Your task to perform on an android device: turn off picture-in-picture Image 0: 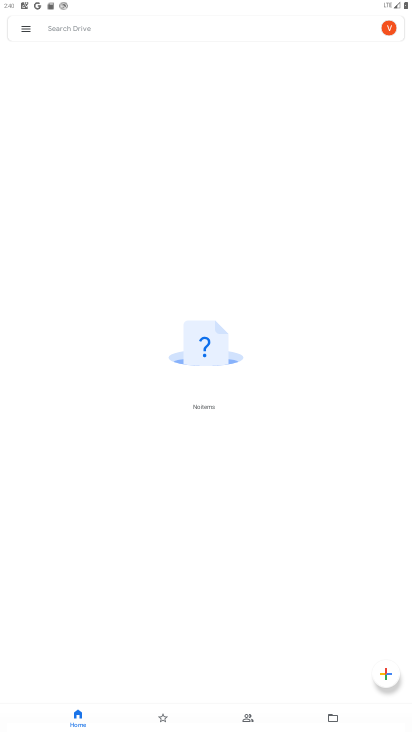
Step 0: press home button
Your task to perform on an android device: turn off picture-in-picture Image 1: 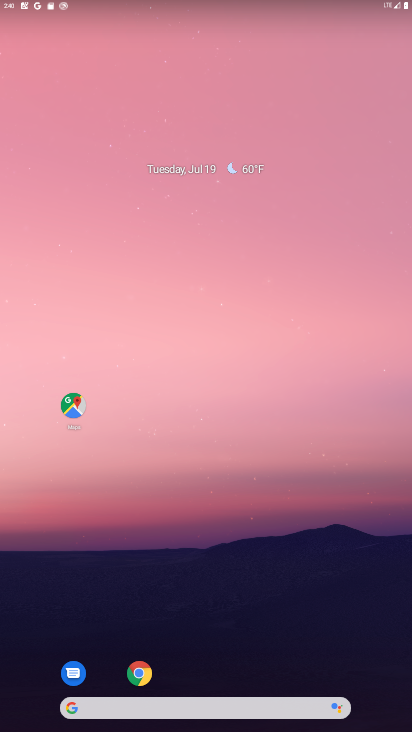
Step 1: click (143, 668)
Your task to perform on an android device: turn off picture-in-picture Image 2: 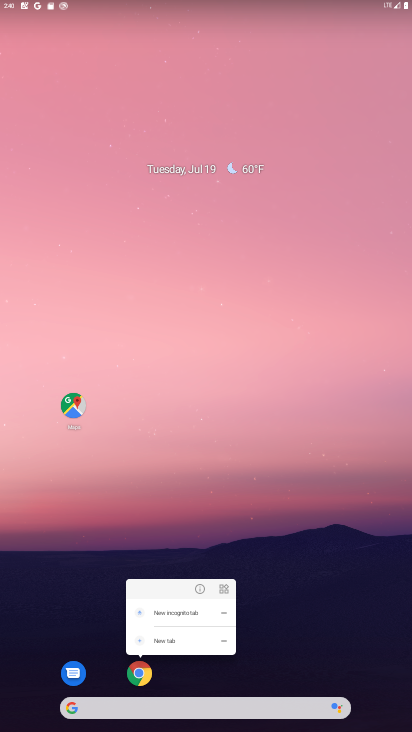
Step 2: click (201, 588)
Your task to perform on an android device: turn off picture-in-picture Image 3: 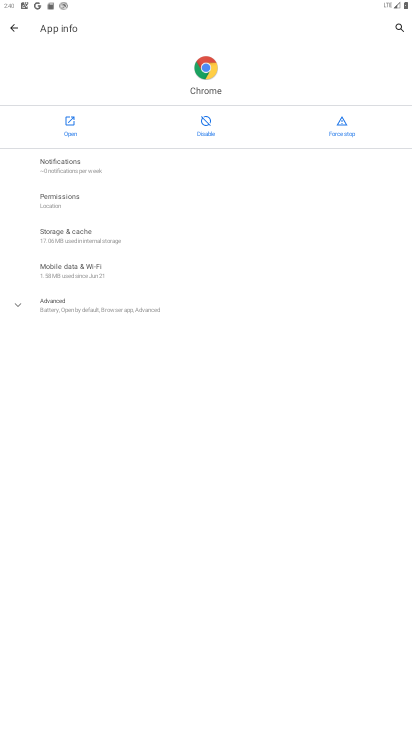
Step 3: click (101, 308)
Your task to perform on an android device: turn off picture-in-picture Image 4: 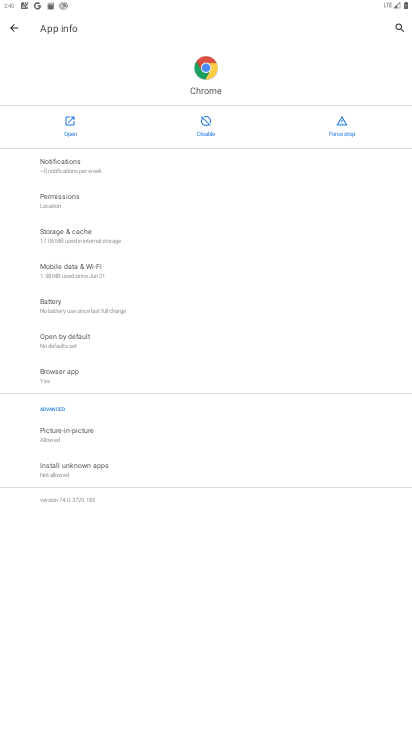
Step 4: click (105, 433)
Your task to perform on an android device: turn off picture-in-picture Image 5: 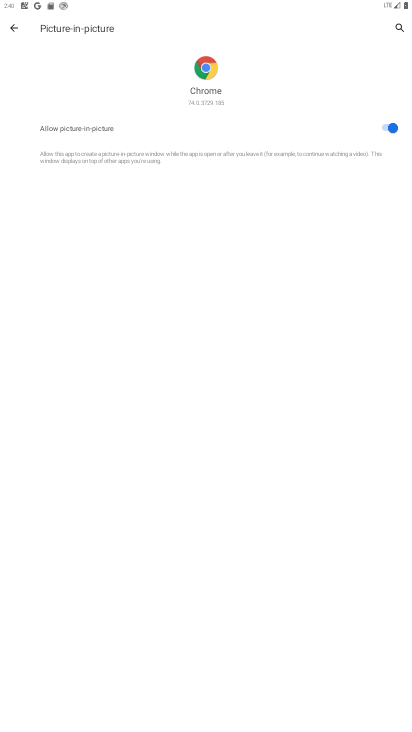
Step 5: click (394, 127)
Your task to perform on an android device: turn off picture-in-picture Image 6: 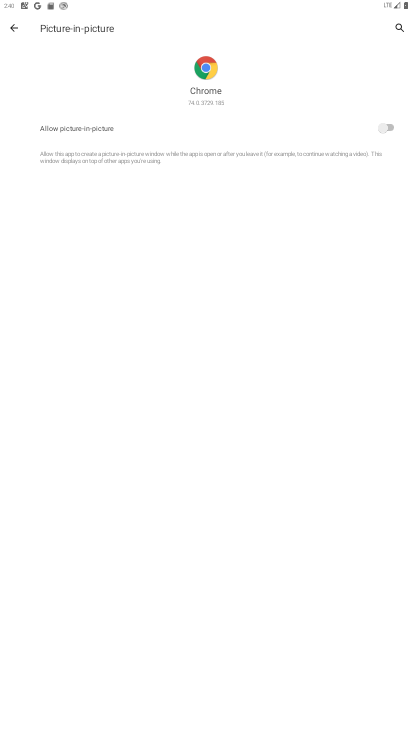
Step 6: task complete